Your task to perform on an android device: Go to Google Image 0: 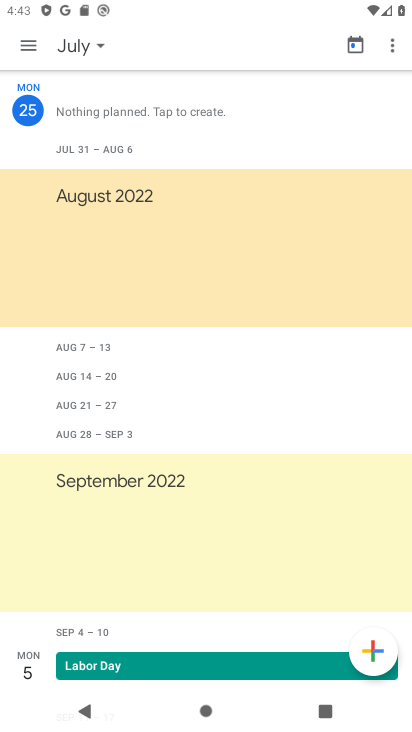
Step 0: press home button
Your task to perform on an android device: Go to Google Image 1: 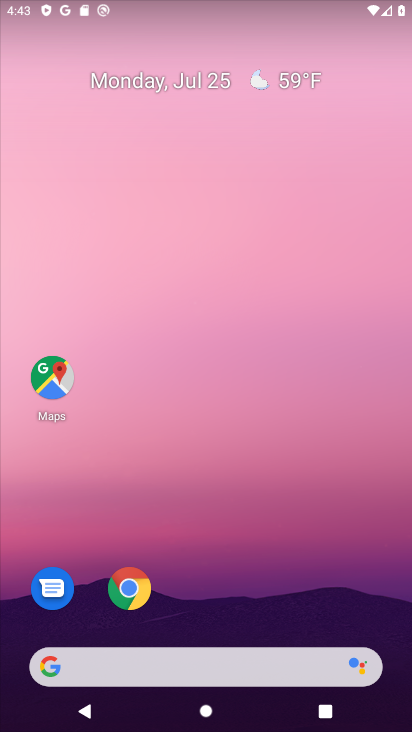
Step 1: click (151, 680)
Your task to perform on an android device: Go to Google Image 2: 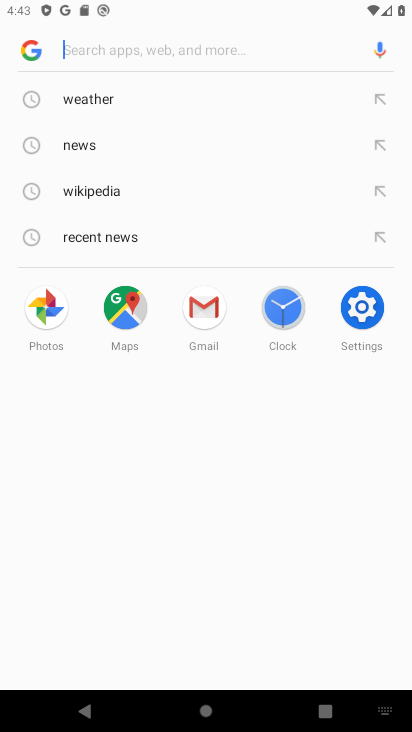
Step 2: task complete